Your task to perform on an android device: Search for pizza restaurants on Maps Image 0: 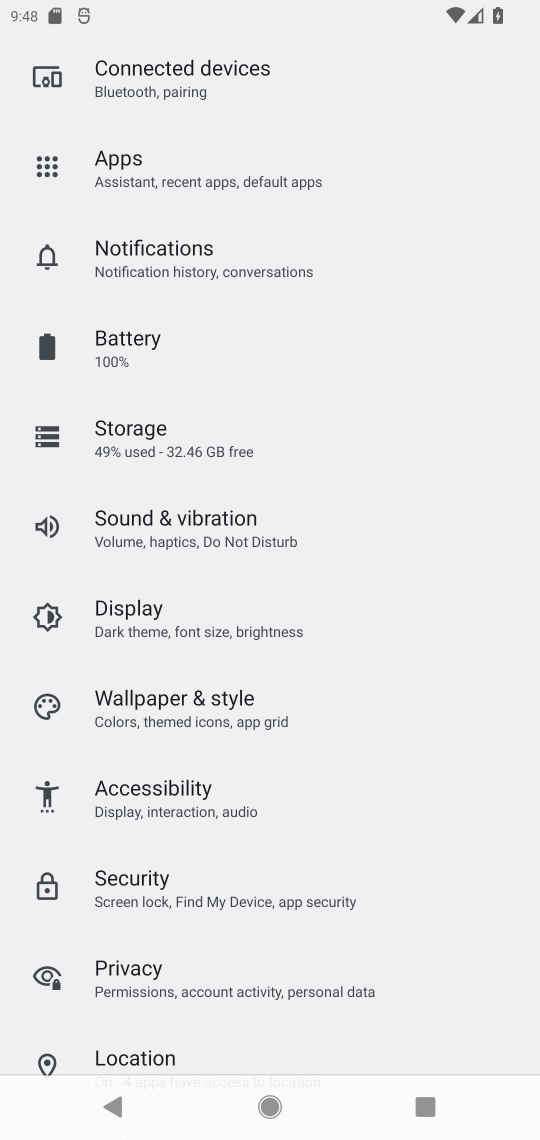
Step 0: press home button
Your task to perform on an android device: Search for pizza restaurants on Maps Image 1: 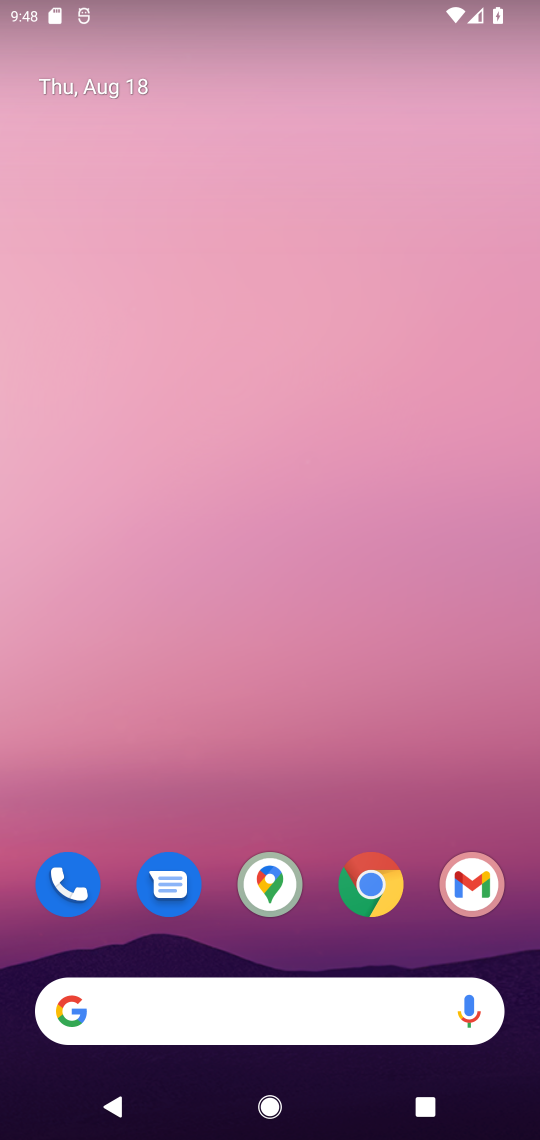
Step 1: click (285, 900)
Your task to perform on an android device: Search for pizza restaurants on Maps Image 2: 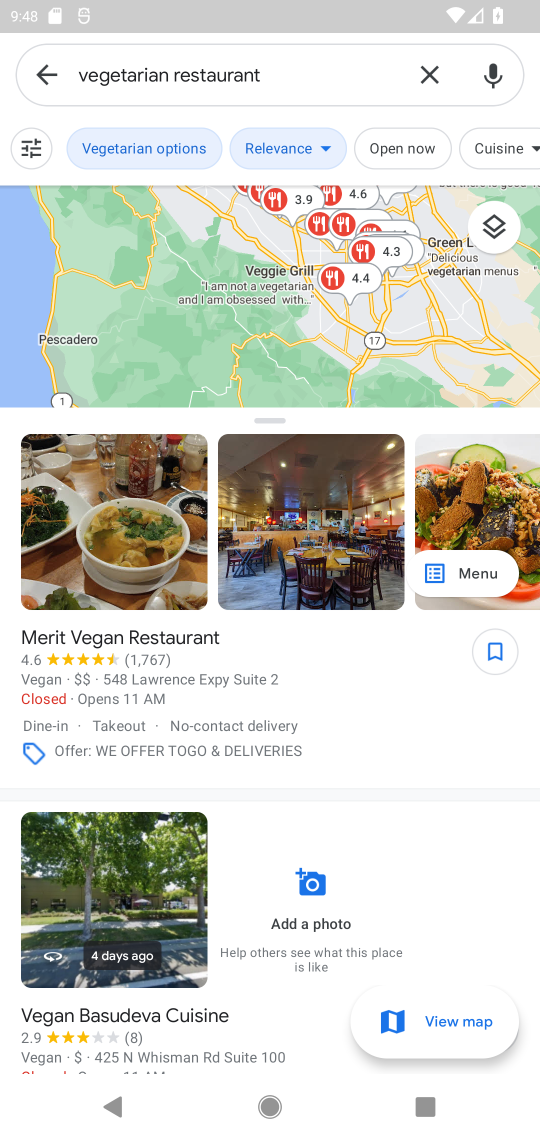
Step 2: click (429, 65)
Your task to perform on an android device: Search for pizza restaurants on Maps Image 3: 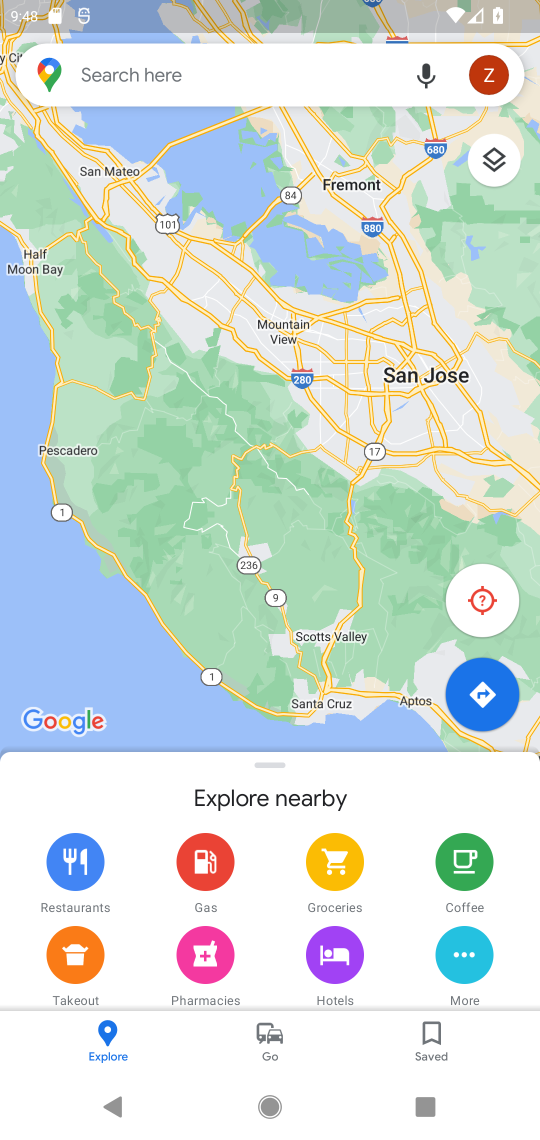
Step 3: type "pizza "
Your task to perform on an android device: Search for pizza restaurants on Maps Image 4: 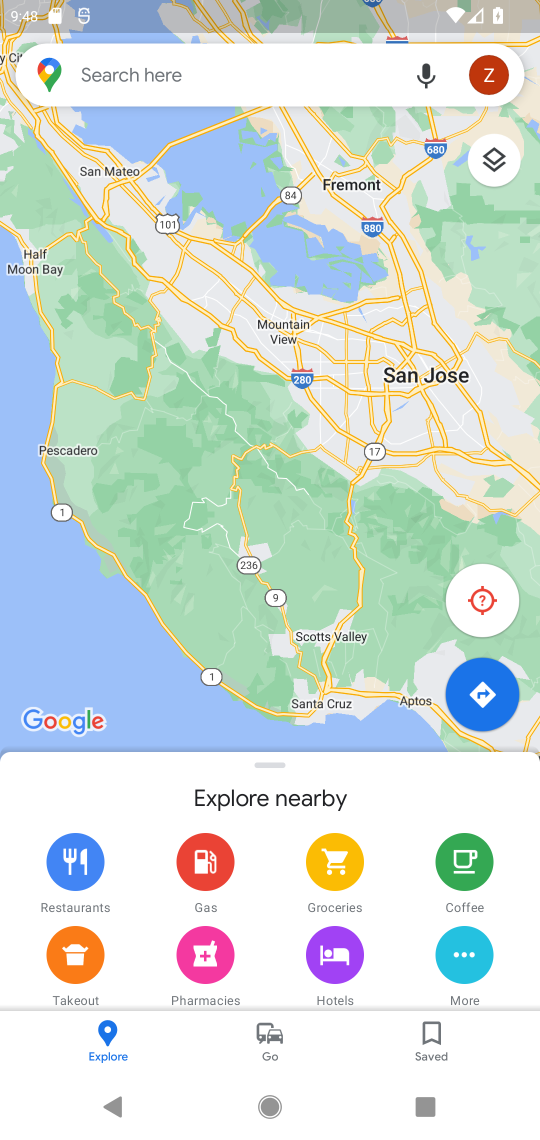
Step 4: click (283, 75)
Your task to perform on an android device: Search for pizza restaurants on Maps Image 5: 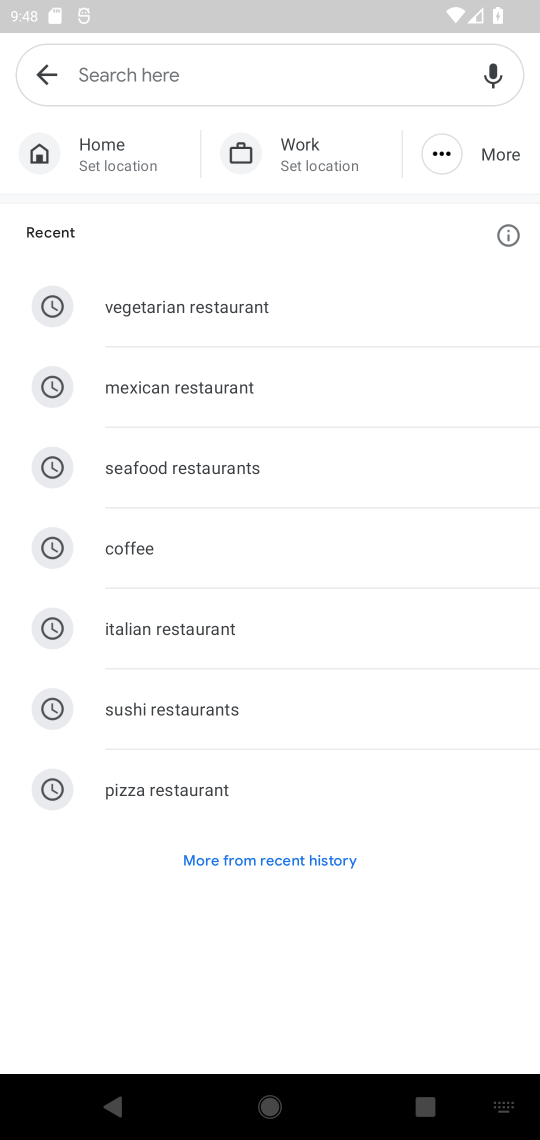
Step 5: click (167, 792)
Your task to perform on an android device: Search for pizza restaurants on Maps Image 6: 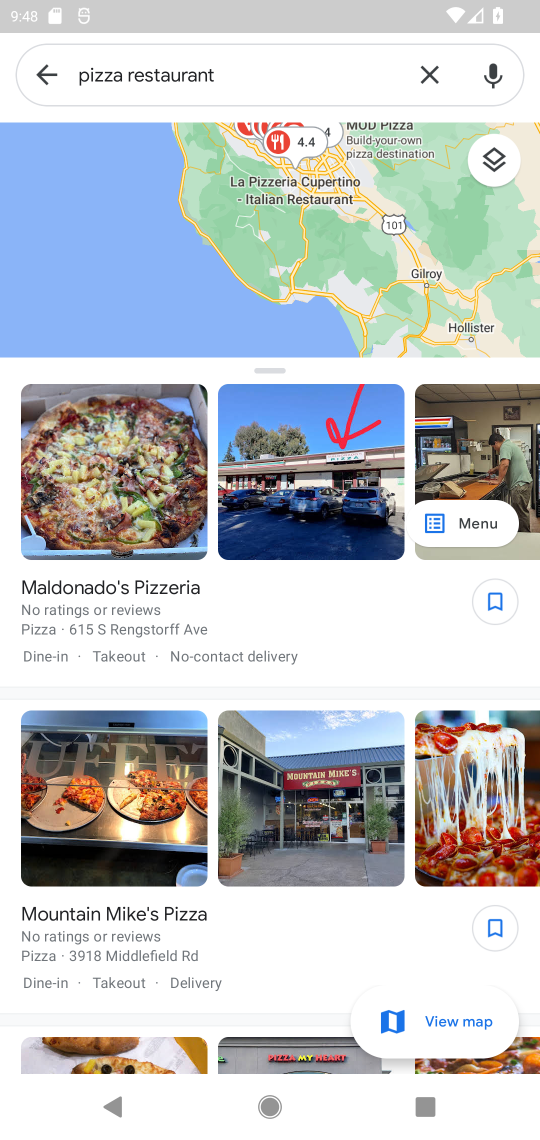
Step 6: task complete